Your task to perform on an android device: Open Wikipedia Image 0: 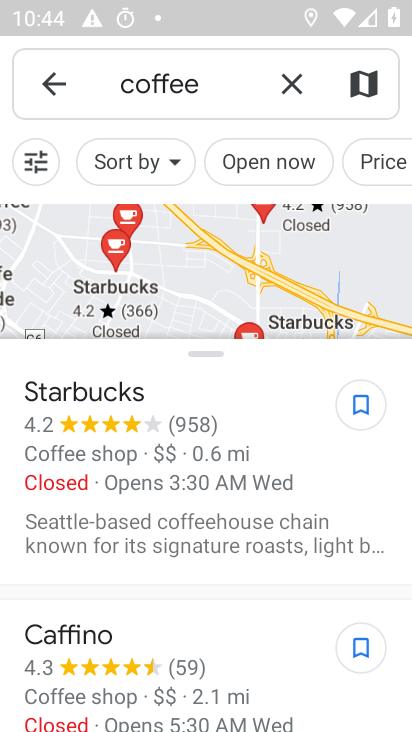
Step 0: press home button
Your task to perform on an android device: Open Wikipedia Image 1: 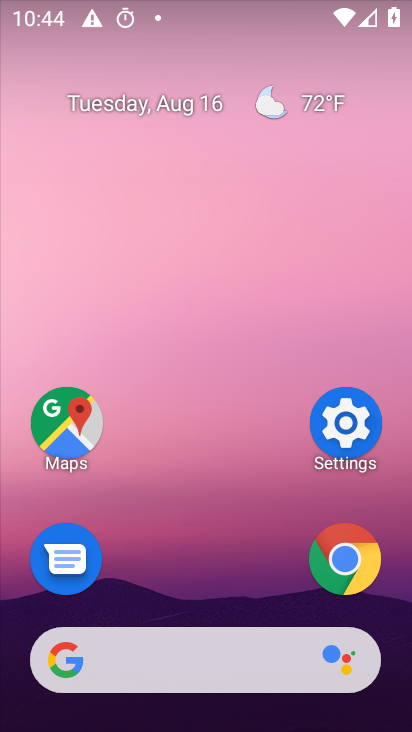
Step 1: click (352, 573)
Your task to perform on an android device: Open Wikipedia Image 2: 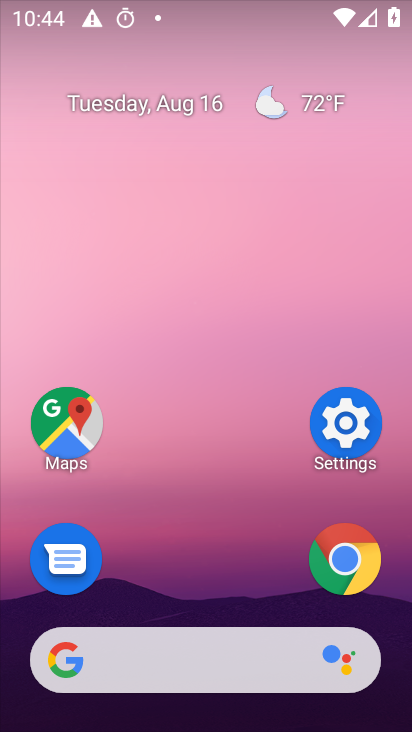
Step 2: click (341, 561)
Your task to perform on an android device: Open Wikipedia Image 3: 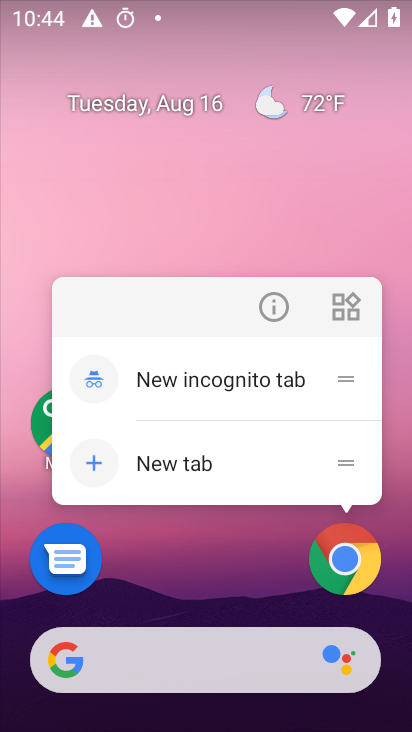
Step 3: click (341, 562)
Your task to perform on an android device: Open Wikipedia Image 4: 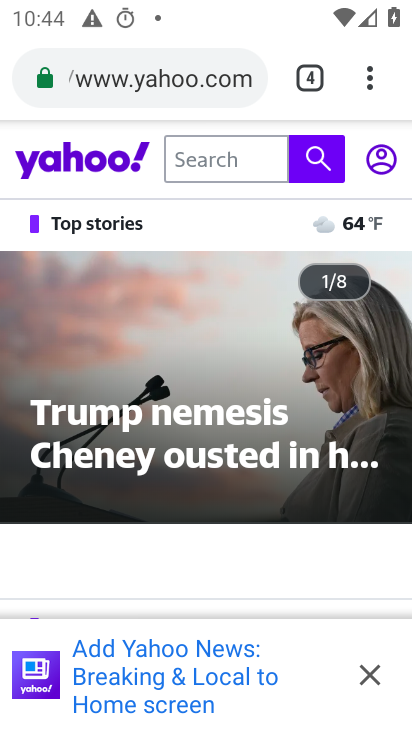
Step 4: drag from (367, 84) to (140, 156)
Your task to perform on an android device: Open Wikipedia Image 5: 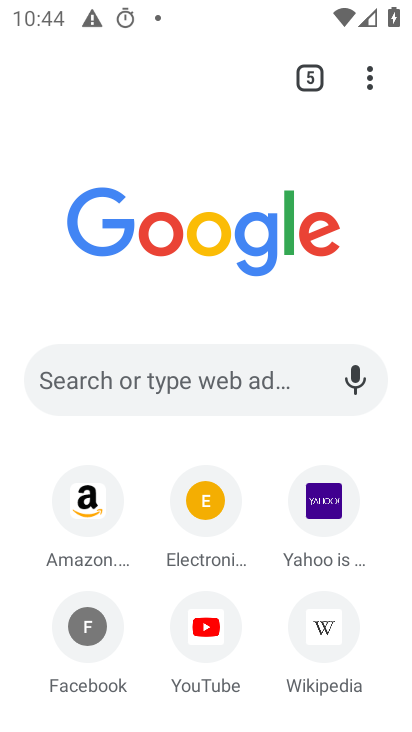
Step 5: click (328, 634)
Your task to perform on an android device: Open Wikipedia Image 6: 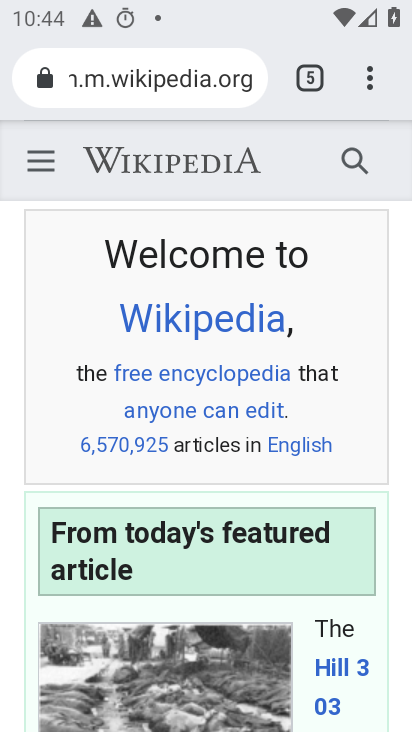
Step 6: task complete